Your task to perform on an android device: open app "Viber Messenger" (install if not already installed) Image 0: 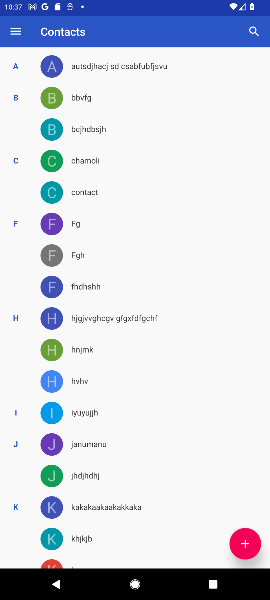
Step 0: task complete